Your task to perform on an android device: Show me productivity apps on the Play Store Image 0: 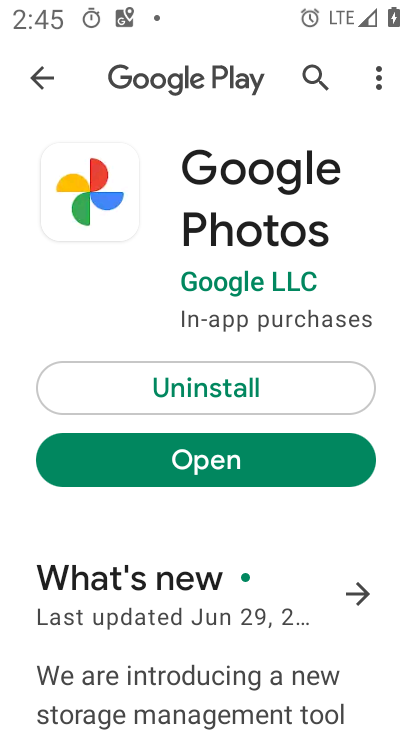
Step 0: press home button
Your task to perform on an android device: Show me productivity apps on the Play Store Image 1: 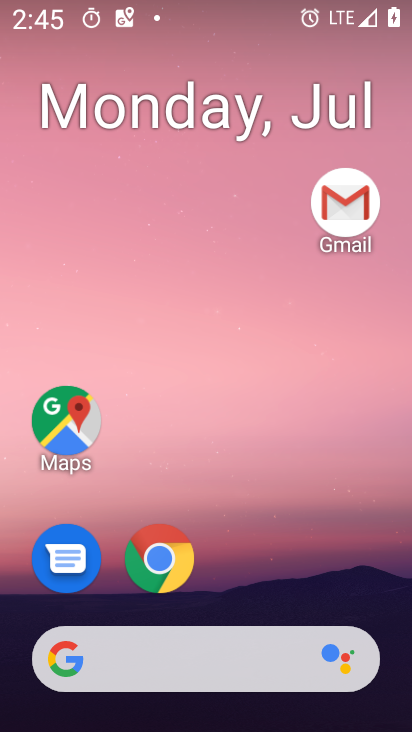
Step 1: drag from (322, 558) to (331, 91)
Your task to perform on an android device: Show me productivity apps on the Play Store Image 2: 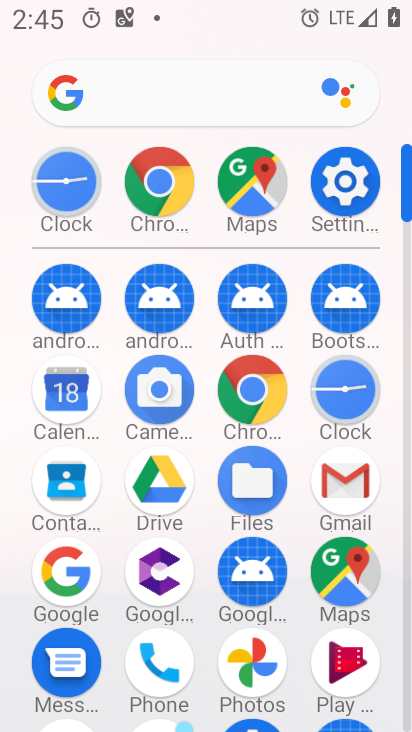
Step 2: drag from (378, 614) to (392, 370)
Your task to perform on an android device: Show me productivity apps on the Play Store Image 3: 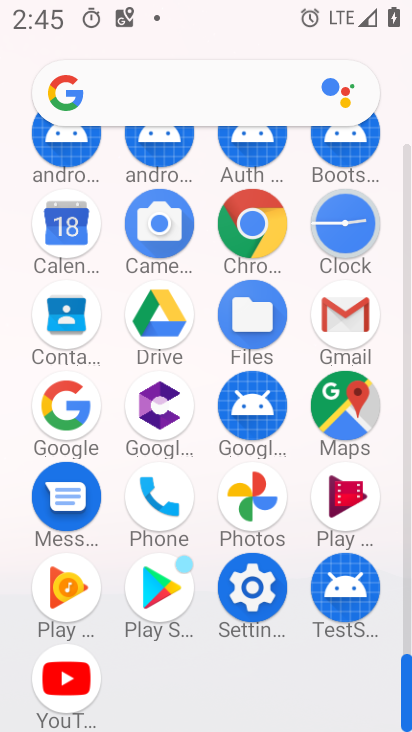
Step 3: click (165, 587)
Your task to perform on an android device: Show me productivity apps on the Play Store Image 4: 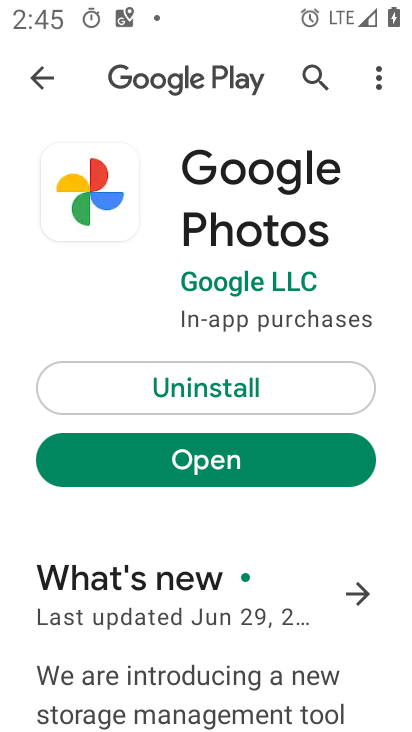
Step 4: press back button
Your task to perform on an android device: Show me productivity apps on the Play Store Image 5: 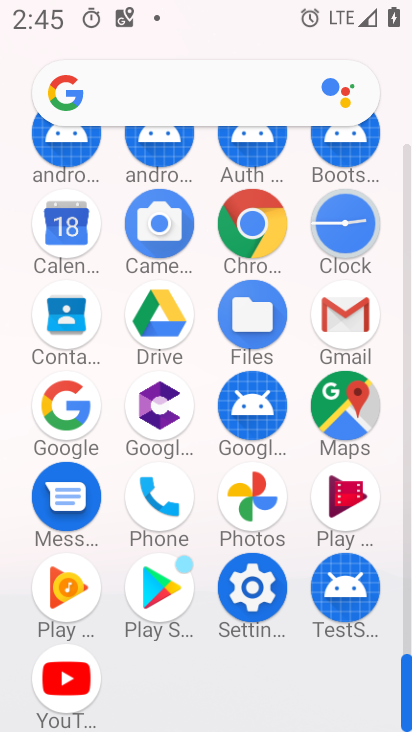
Step 5: click (161, 598)
Your task to perform on an android device: Show me productivity apps on the Play Store Image 6: 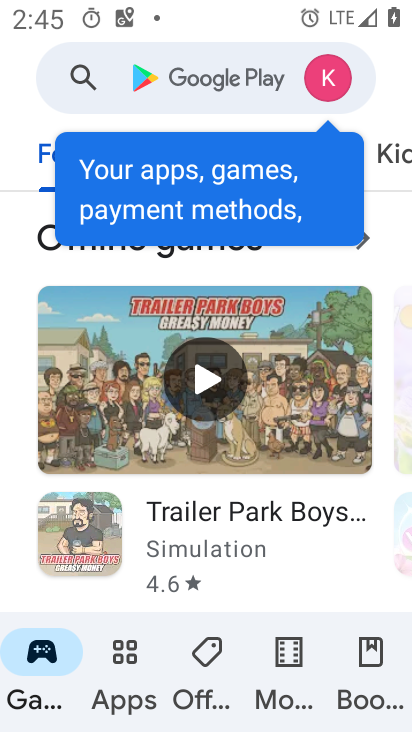
Step 6: click (129, 659)
Your task to perform on an android device: Show me productivity apps on the Play Store Image 7: 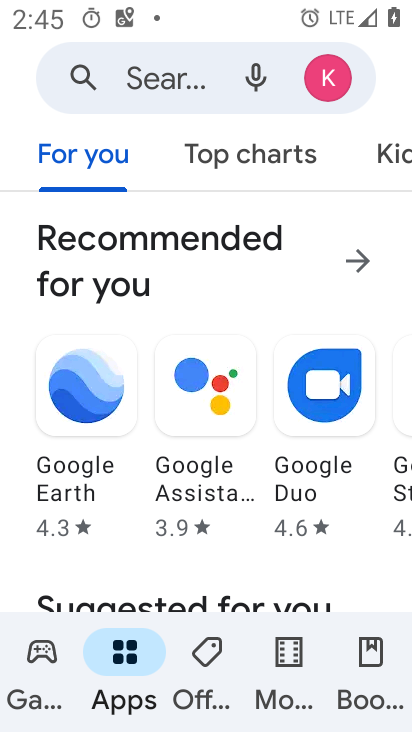
Step 7: task complete